Your task to perform on an android device: delete browsing data in the chrome app Image 0: 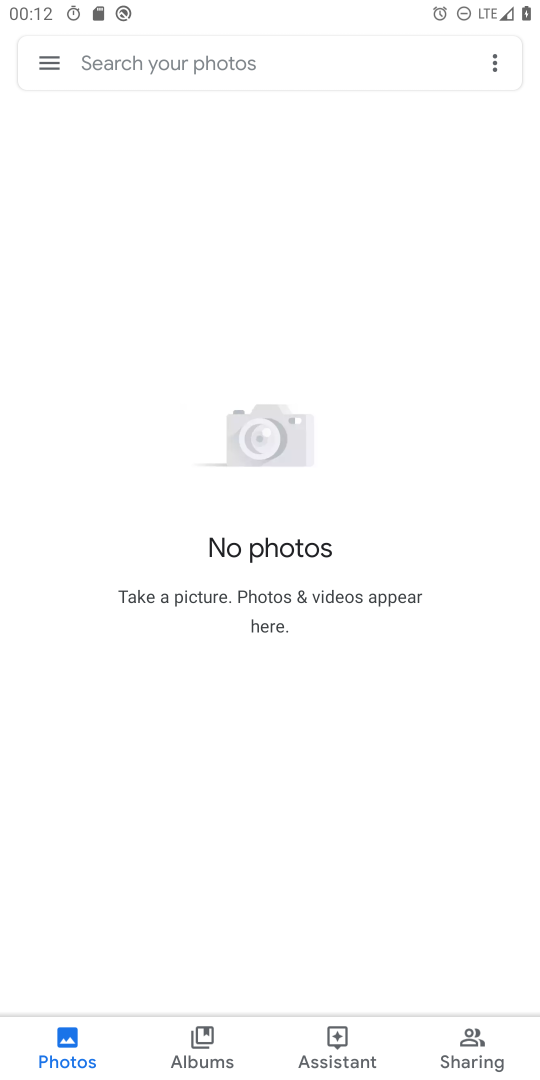
Step 0: press home button
Your task to perform on an android device: delete browsing data in the chrome app Image 1: 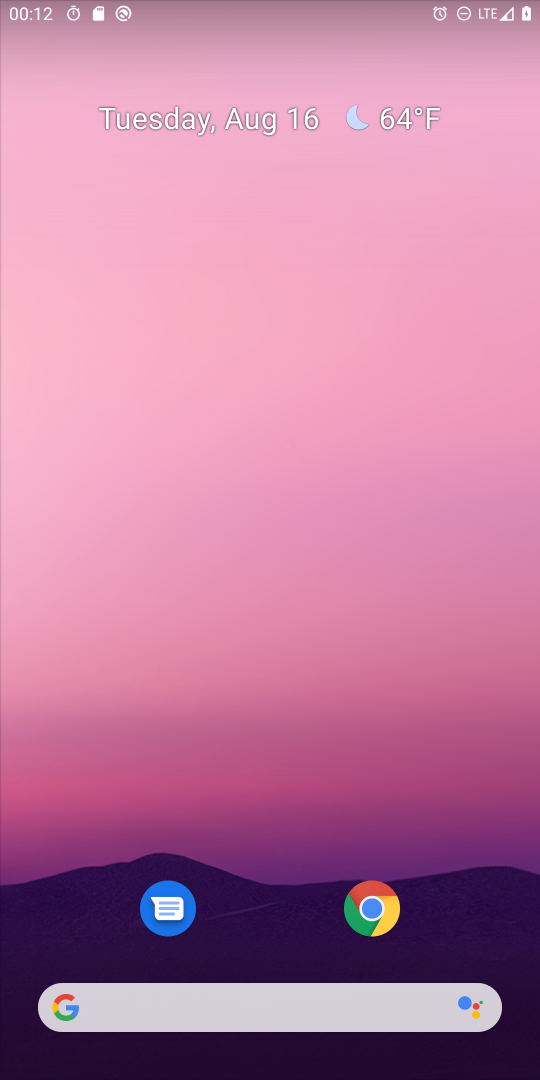
Step 1: click (386, 911)
Your task to perform on an android device: delete browsing data in the chrome app Image 2: 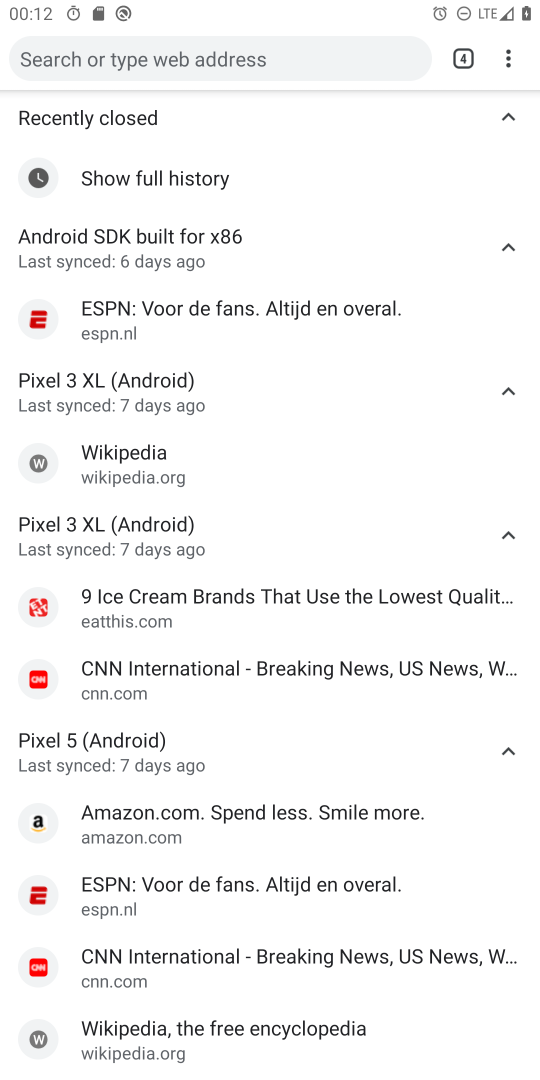
Step 2: click (518, 58)
Your task to perform on an android device: delete browsing data in the chrome app Image 3: 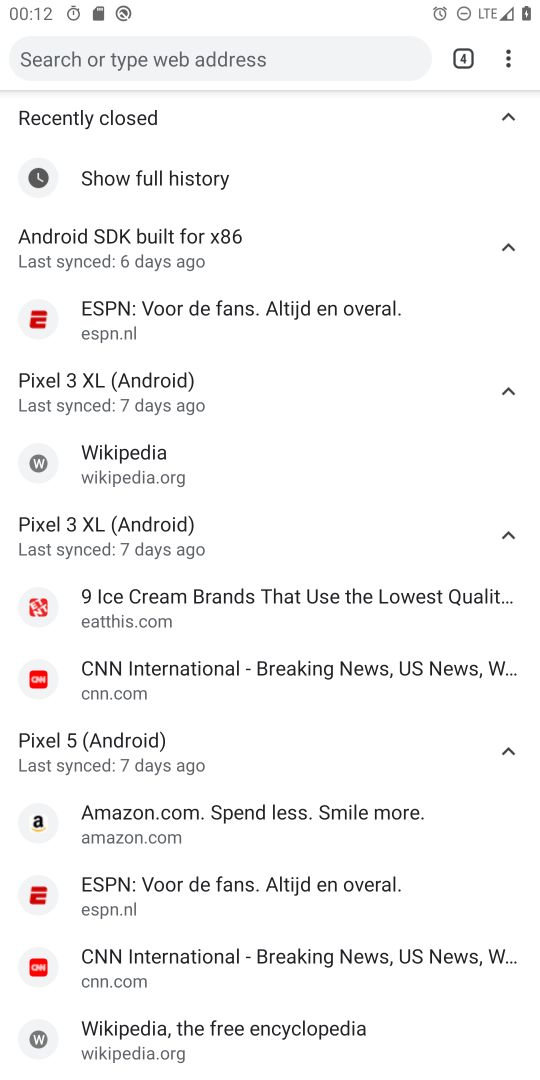
Step 3: click (506, 58)
Your task to perform on an android device: delete browsing data in the chrome app Image 4: 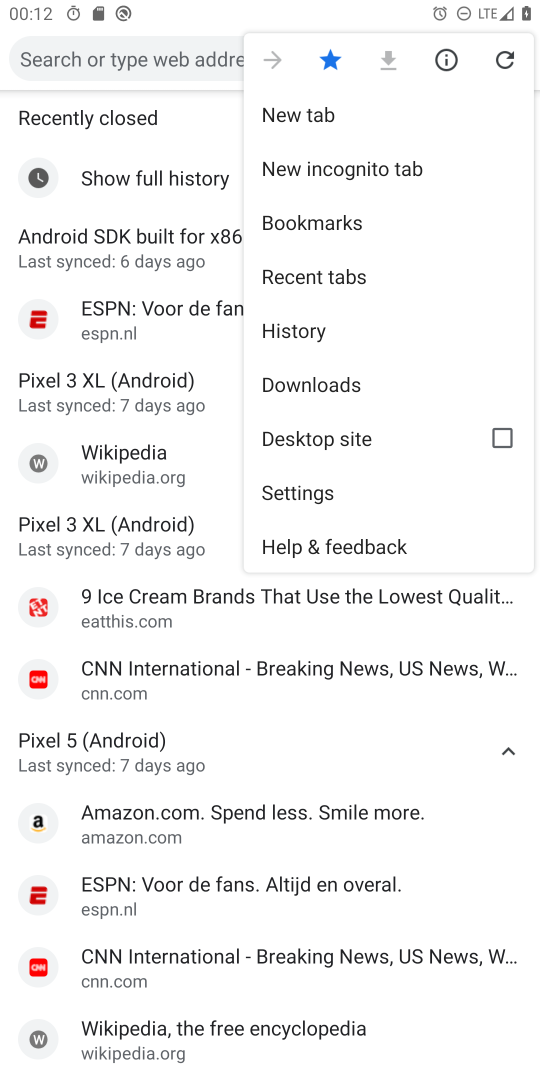
Step 4: click (290, 328)
Your task to perform on an android device: delete browsing data in the chrome app Image 5: 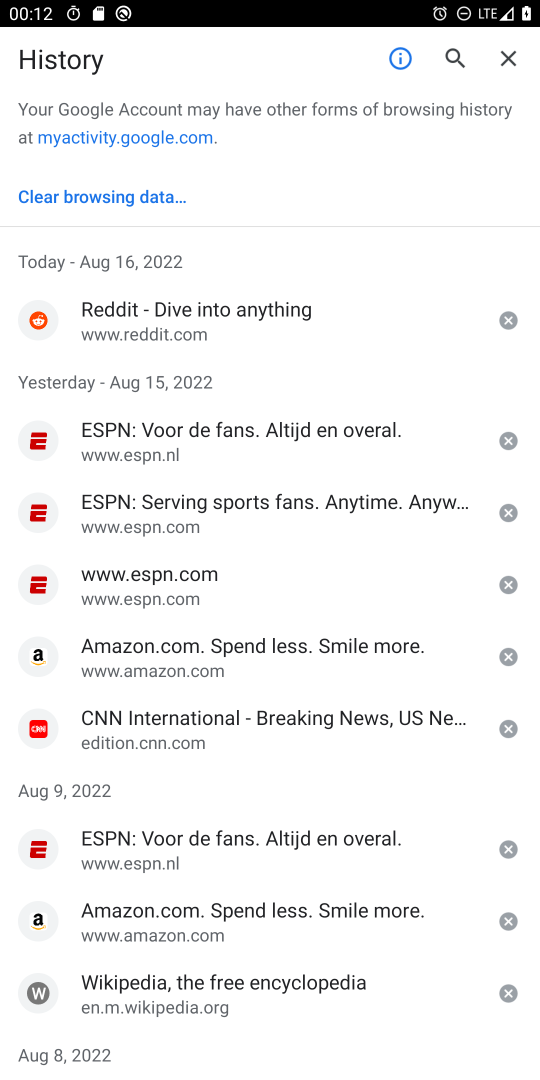
Step 5: click (108, 193)
Your task to perform on an android device: delete browsing data in the chrome app Image 6: 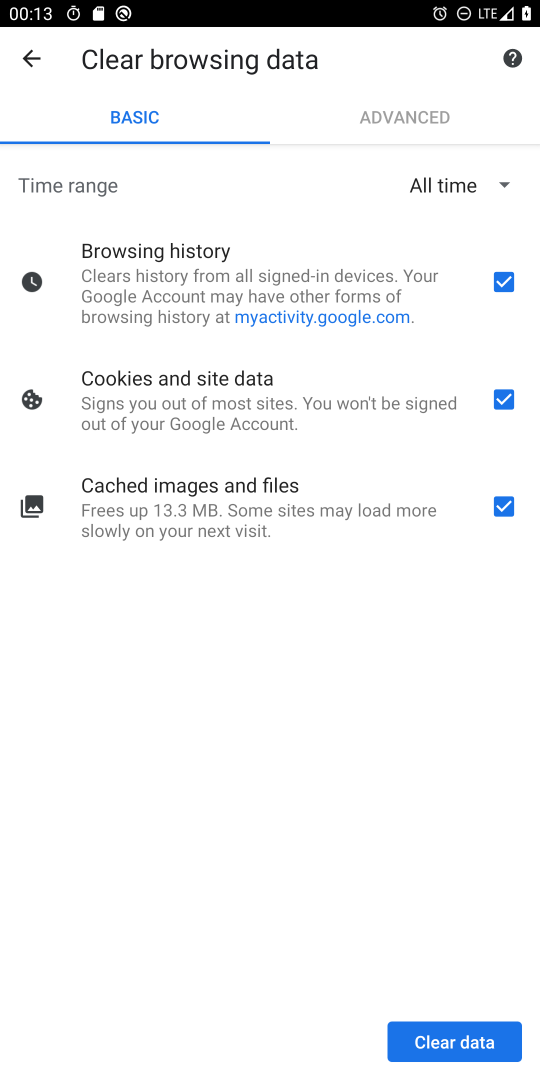
Step 6: click (502, 388)
Your task to perform on an android device: delete browsing data in the chrome app Image 7: 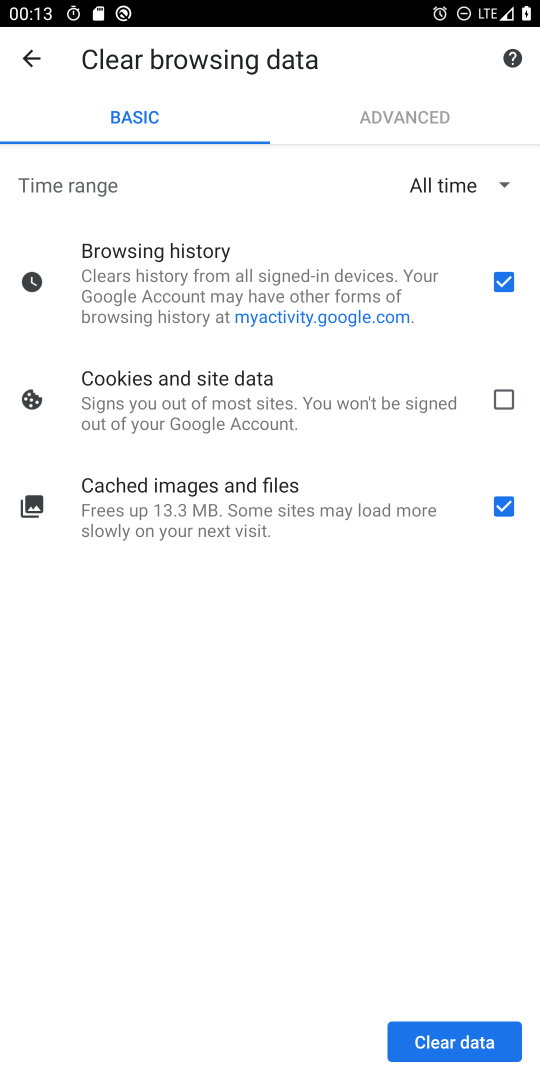
Step 7: click (505, 515)
Your task to perform on an android device: delete browsing data in the chrome app Image 8: 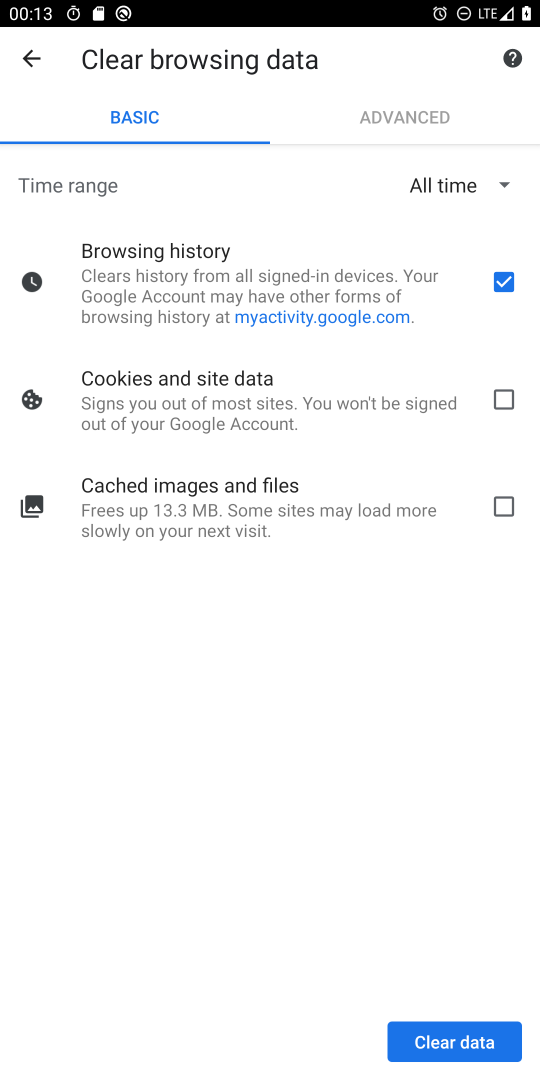
Step 8: click (453, 1035)
Your task to perform on an android device: delete browsing data in the chrome app Image 9: 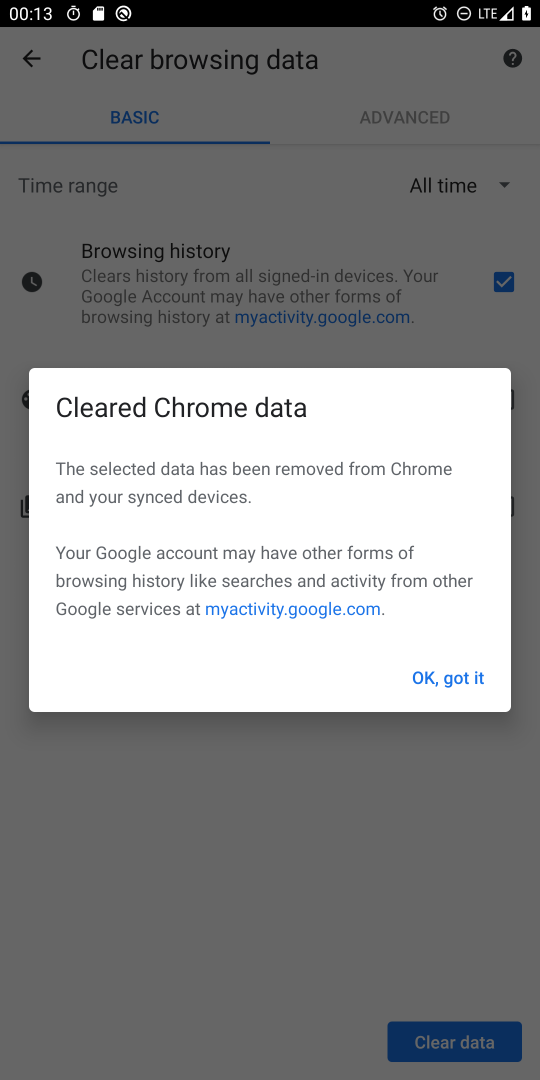
Step 9: click (446, 676)
Your task to perform on an android device: delete browsing data in the chrome app Image 10: 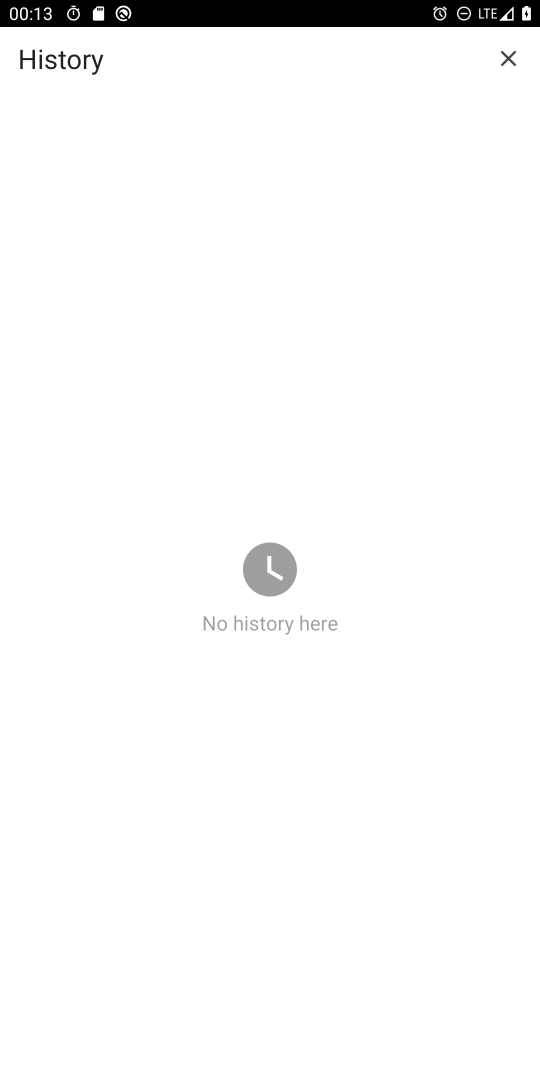
Step 10: task complete